Your task to perform on an android device: Open network settings Image 0: 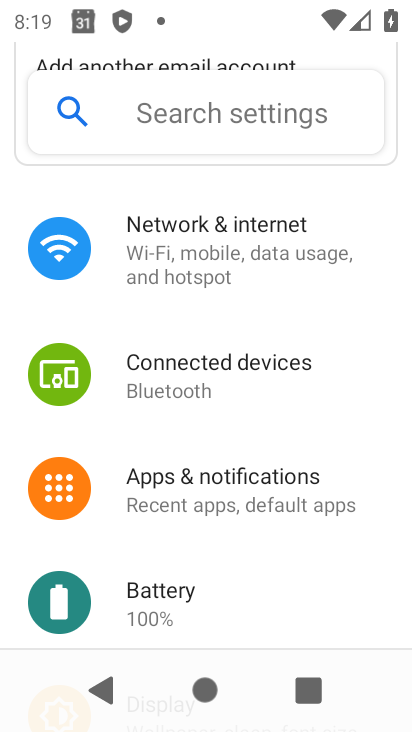
Step 0: click (178, 242)
Your task to perform on an android device: Open network settings Image 1: 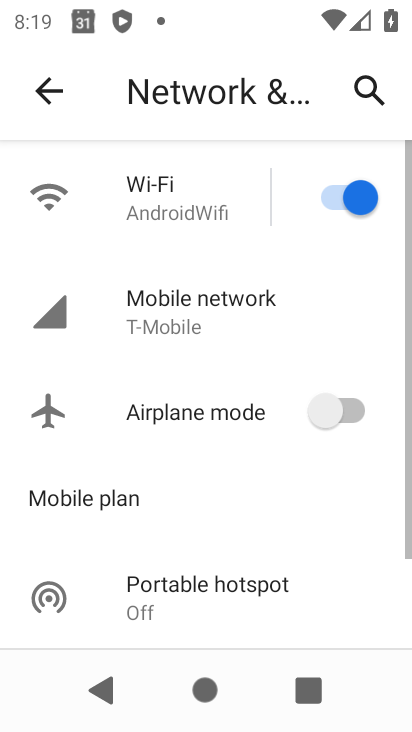
Step 1: click (160, 297)
Your task to perform on an android device: Open network settings Image 2: 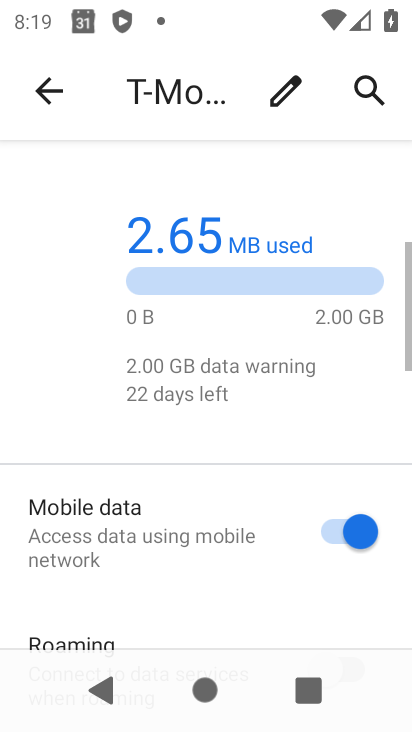
Step 2: drag from (165, 562) to (157, 22)
Your task to perform on an android device: Open network settings Image 3: 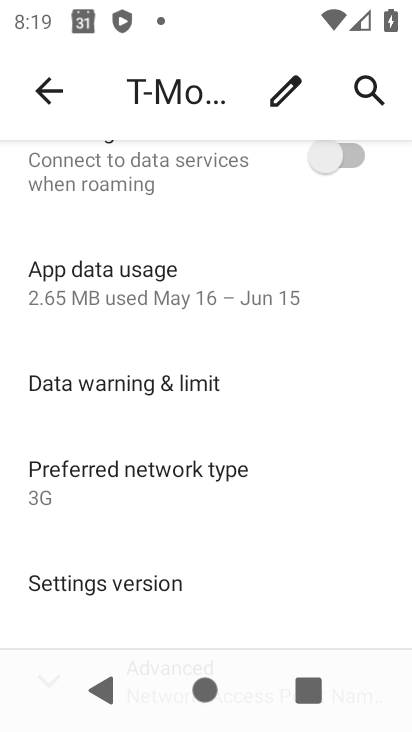
Step 3: drag from (84, 565) to (84, 20)
Your task to perform on an android device: Open network settings Image 4: 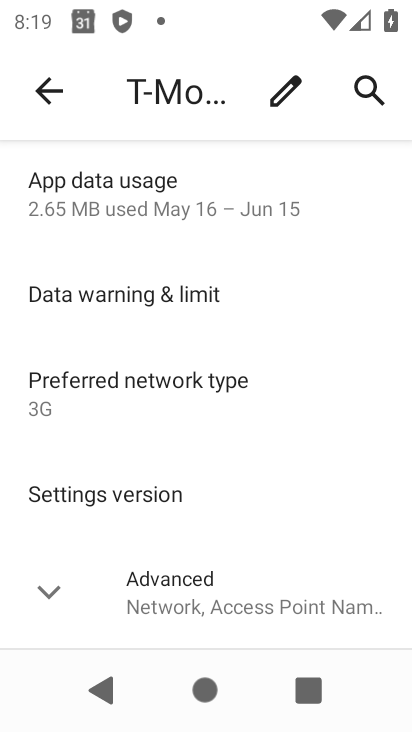
Step 4: click (50, 601)
Your task to perform on an android device: Open network settings Image 5: 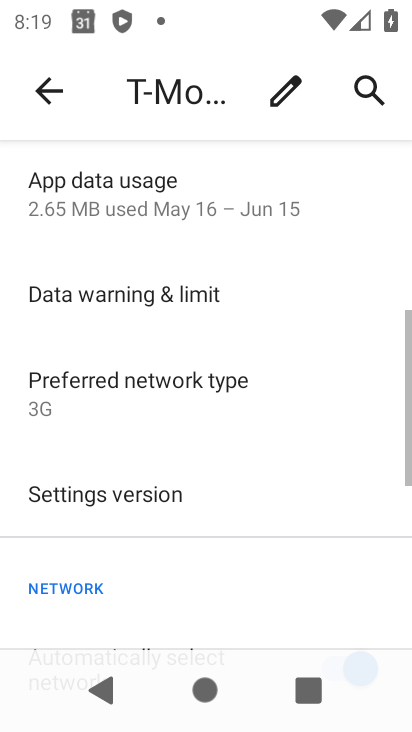
Step 5: task complete